Your task to perform on an android device: Go to Android settings Image 0: 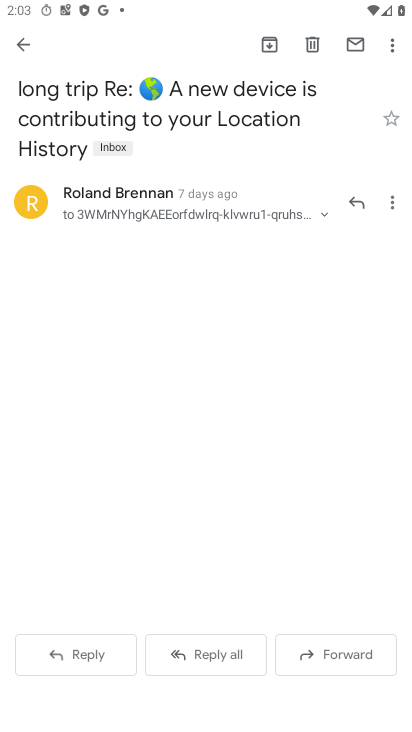
Step 0: press home button
Your task to perform on an android device: Go to Android settings Image 1: 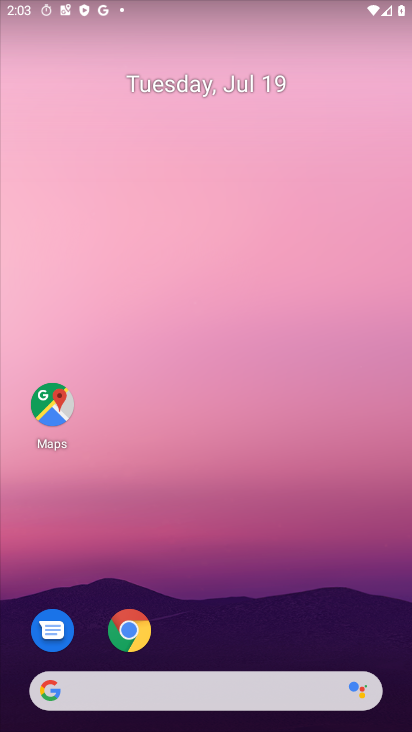
Step 1: drag from (222, 645) to (222, 50)
Your task to perform on an android device: Go to Android settings Image 2: 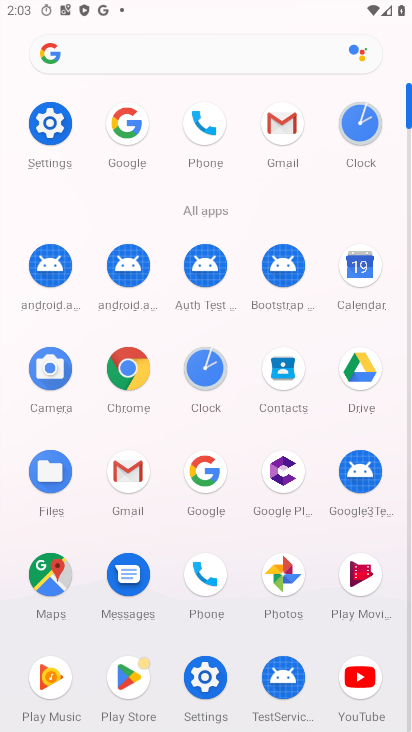
Step 2: click (51, 118)
Your task to perform on an android device: Go to Android settings Image 3: 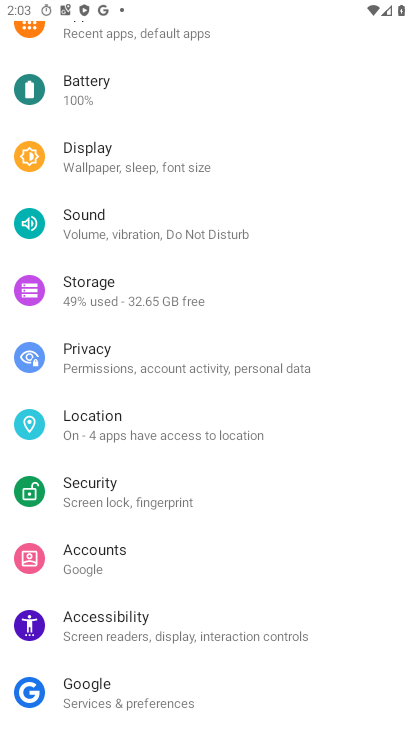
Step 3: drag from (179, 596) to (179, 198)
Your task to perform on an android device: Go to Android settings Image 4: 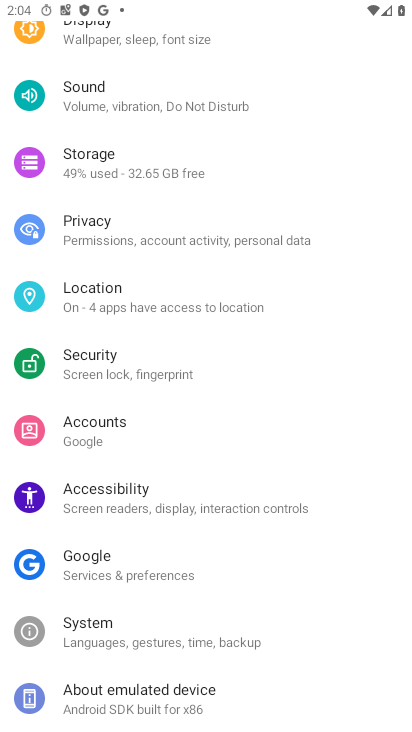
Step 4: click (125, 643)
Your task to perform on an android device: Go to Android settings Image 5: 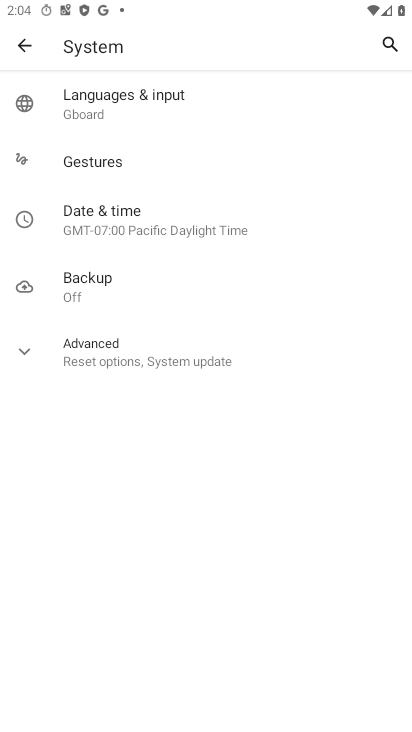
Step 5: task complete